Your task to perform on an android device: Empty the shopping cart on ebay. Add "razer deathadder" to the cart on ebay Image 0: 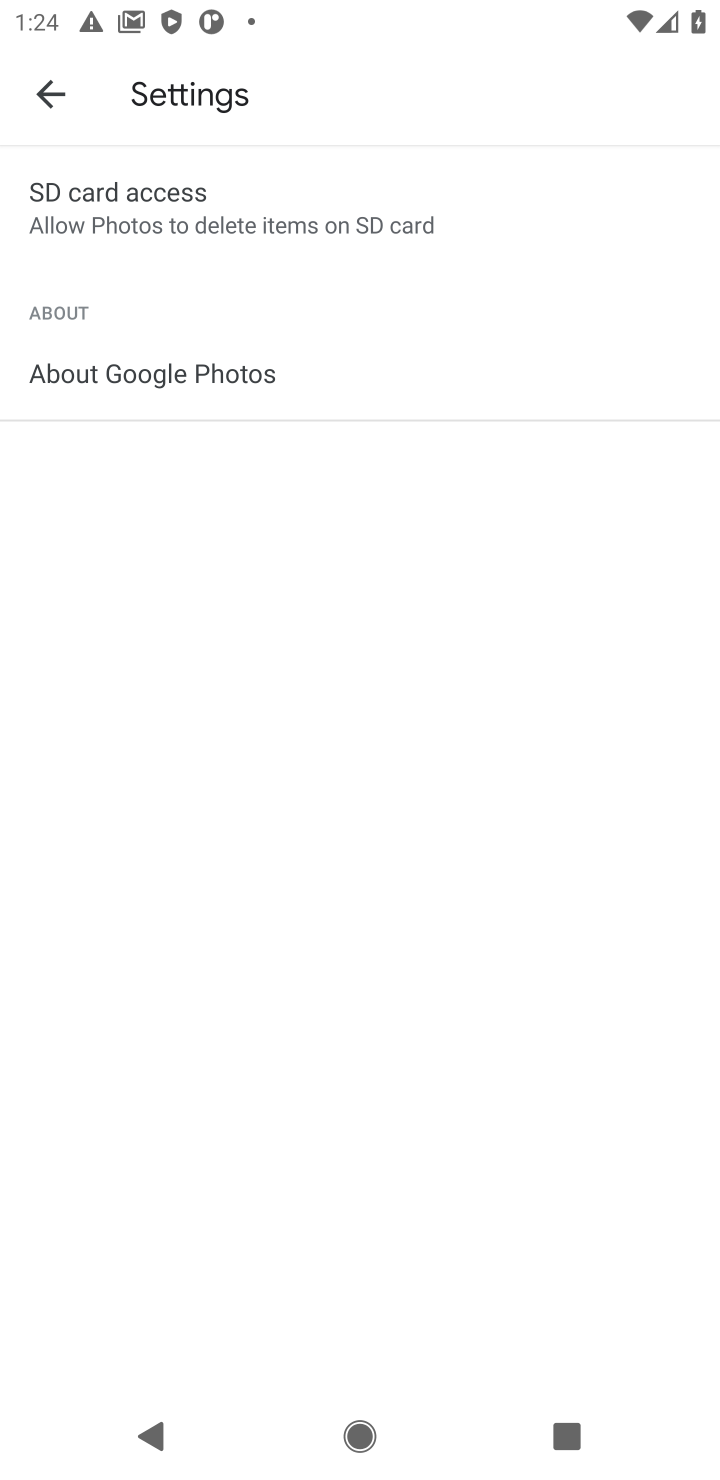
Step 0: press home button
Your task to perform on an android device: Empty the shopping cart on ebay. Add "razer deathadder" to the cart on ebay Image 1: 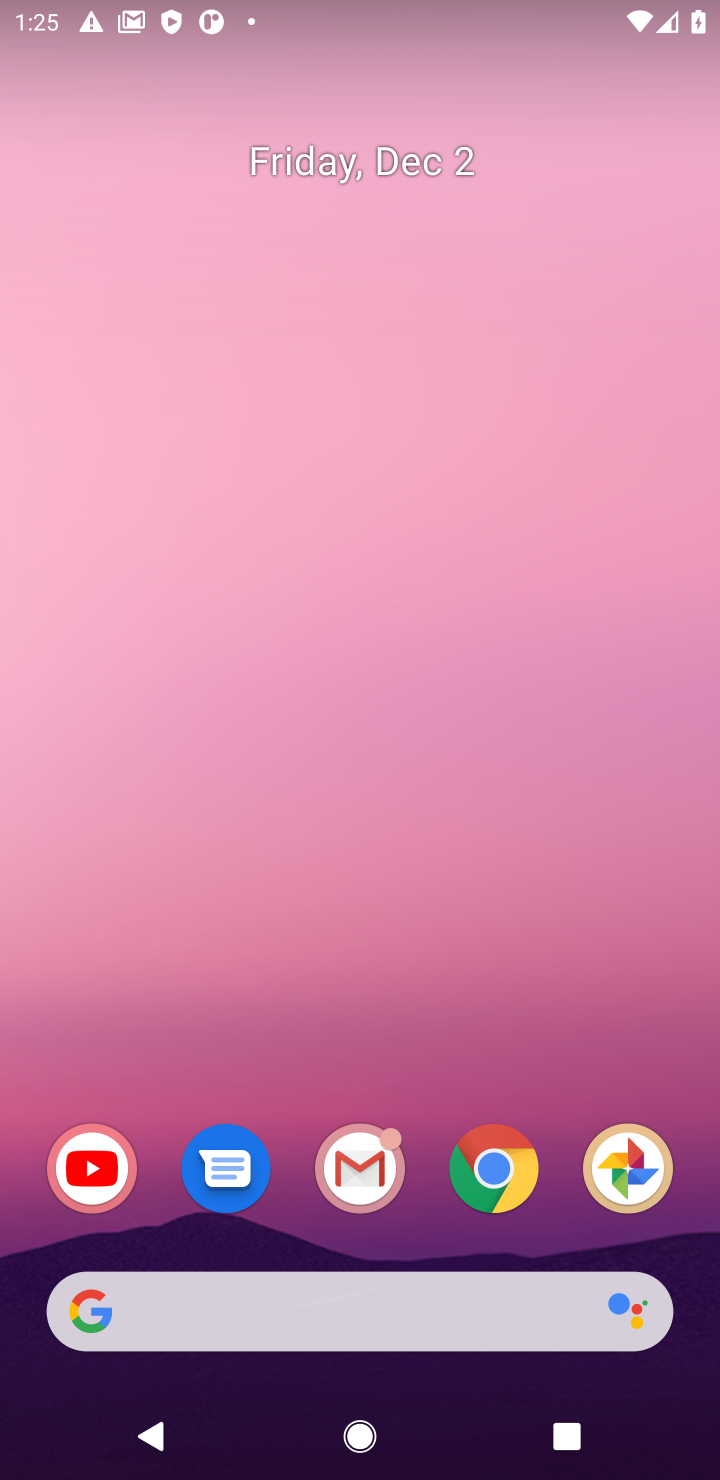
Step 1: click (477, 1163)
Your task to perform on an android device: Empty the shopping cart on ebay. Add "razer deathadder" to the cart on ebay Image 2: 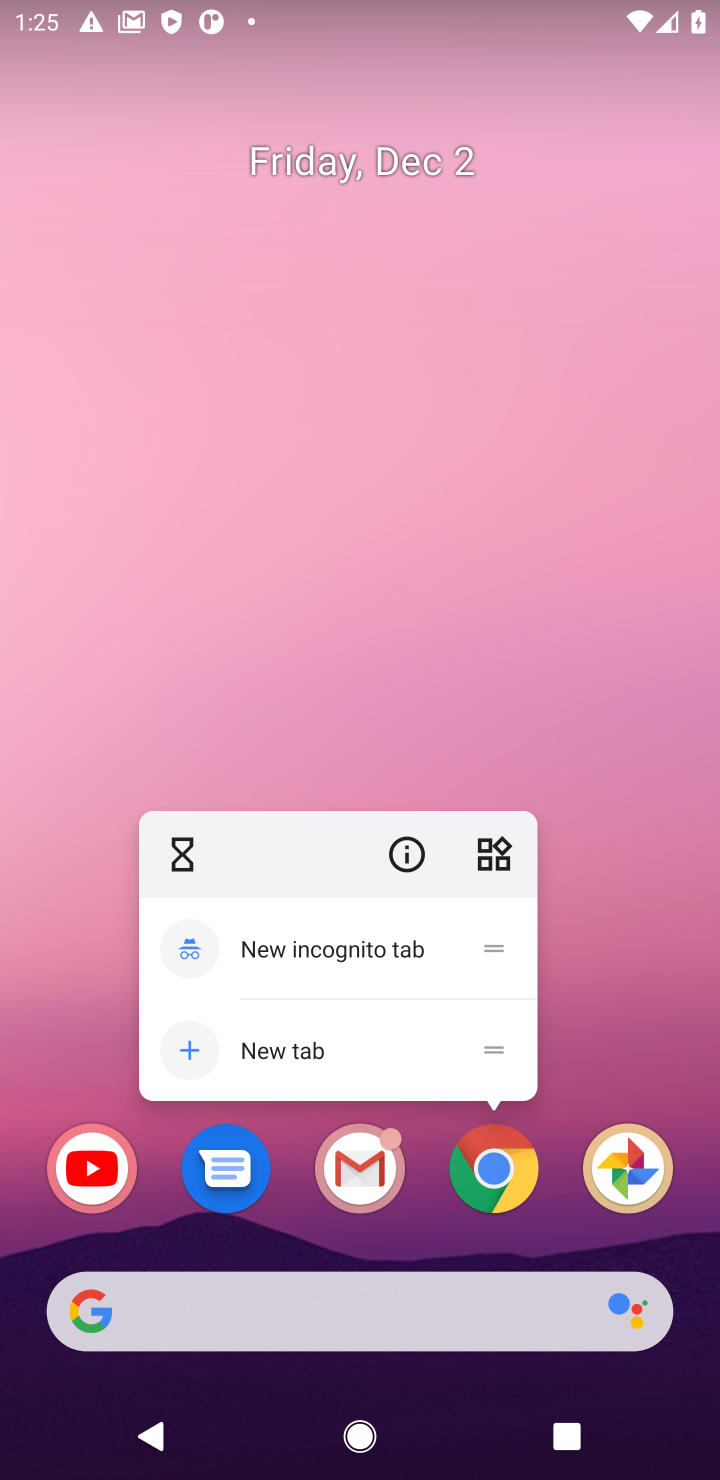
Step 2: click (494, 1178)
Your task to perform on an android device: Empty the shopping cart on ebay. Add "razer deathadder" to the cart on ebay Image 3: 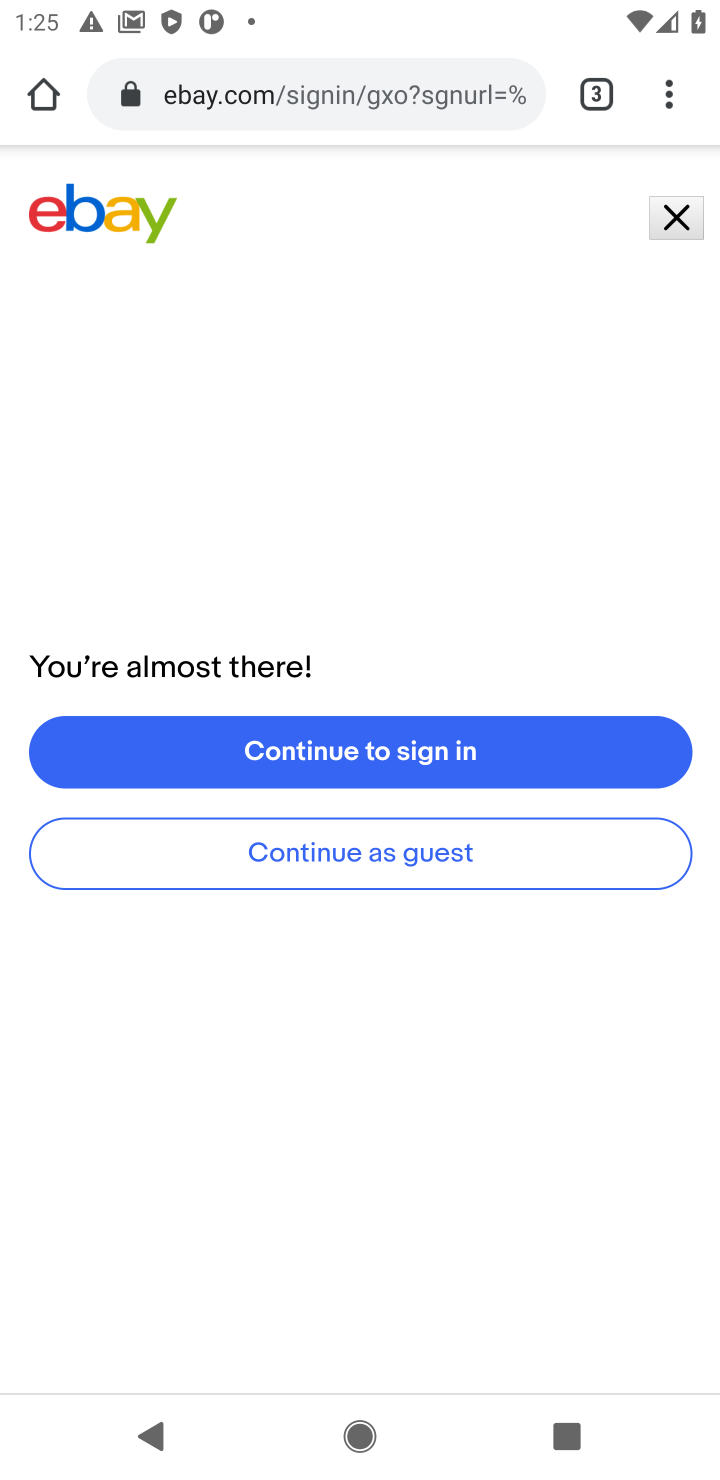
Step 3: click (675, 224)
Your task to perform on an android device: Empty the shopping cart on ebay. Add "razer deathadder" to the cart on ebay Image 4: 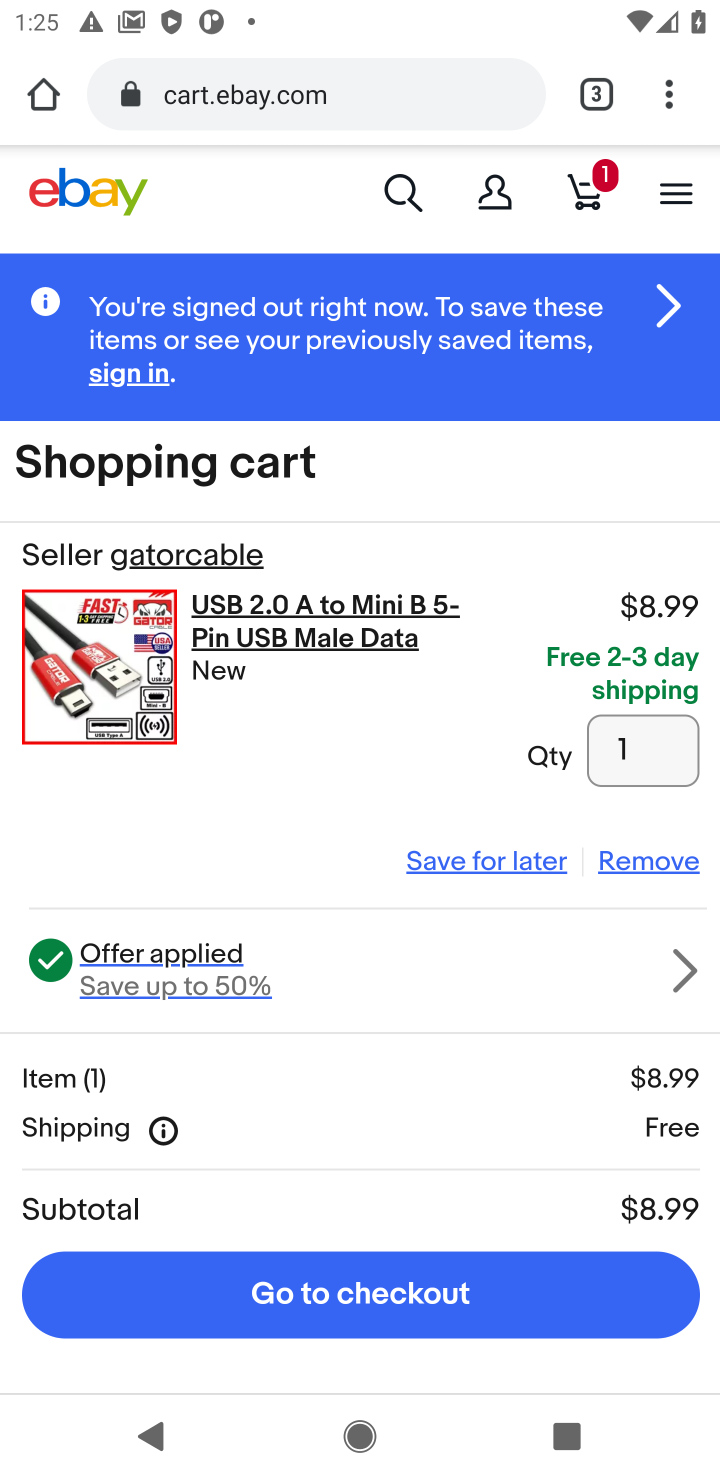
Step 4: drag from (330, 847) to (309, 572)
Your task to perform on an android device: Empty the shopping cart on ebay. Add "razer deathadder" to the cart on ebay Image 5: 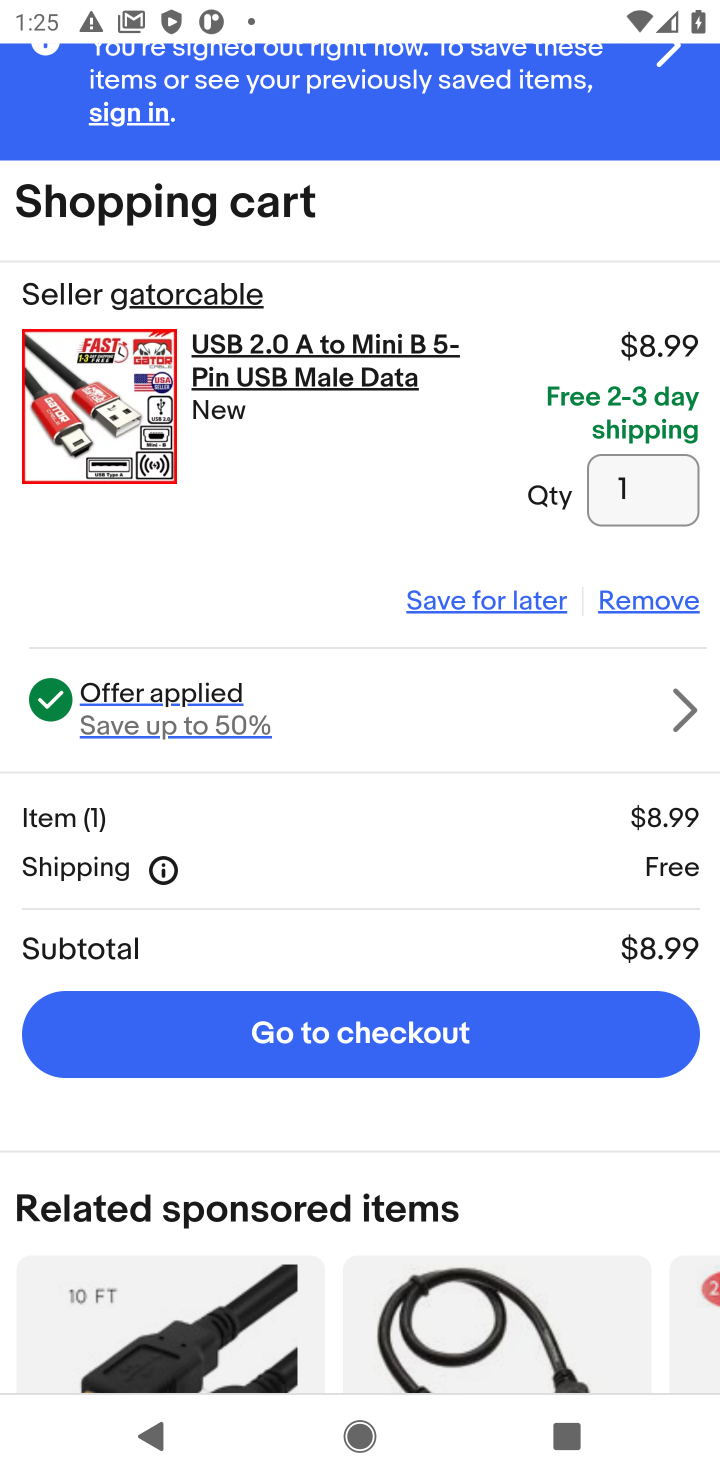
Step 5: click (639, 603)
Your task to perform on an android device: Empty the shopping cart on ebay. Add "razer deathadder" to the cart on ebay Image 6: 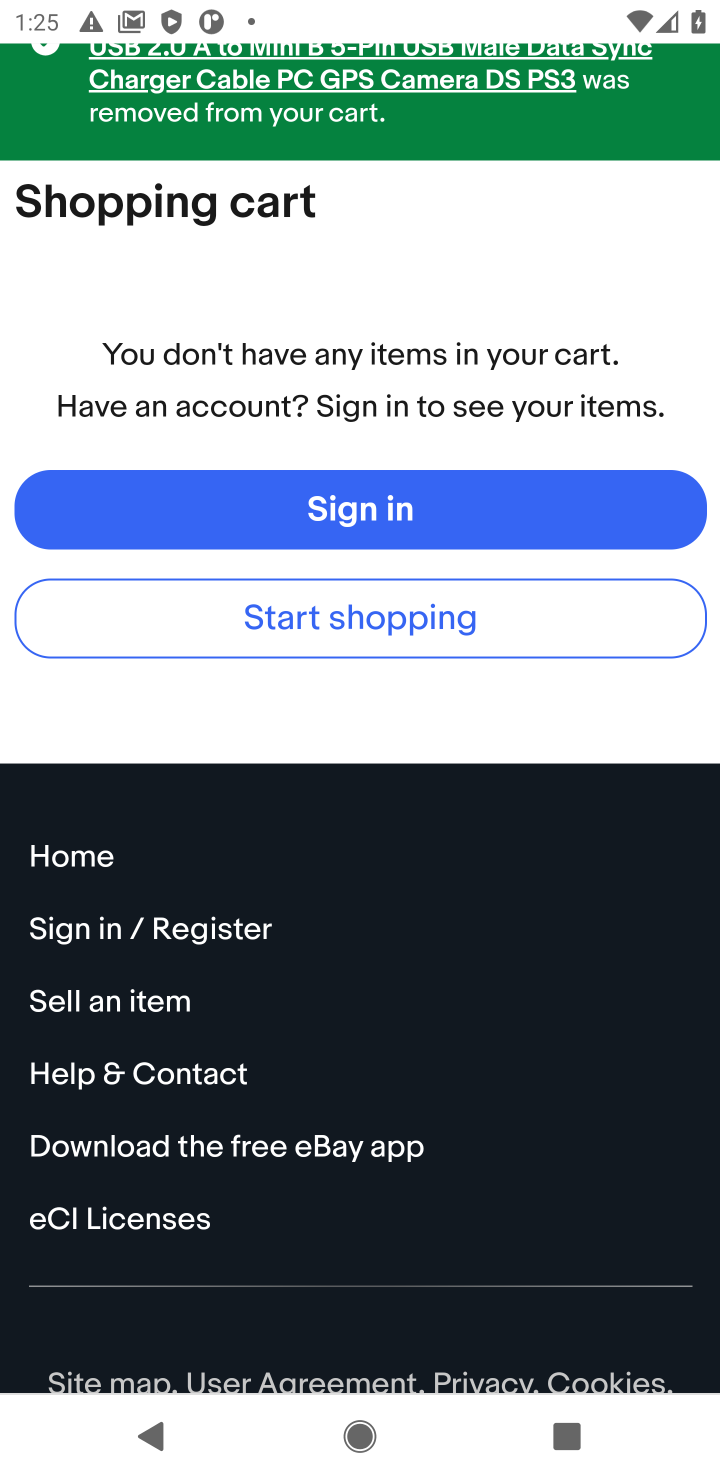
Step 6: drag from (355, 336) to (349, 699)
Your task to perform on an android device: Empty the shopping cart on ebay. Add "razer deathadder" to the cart on ebay Image 7: 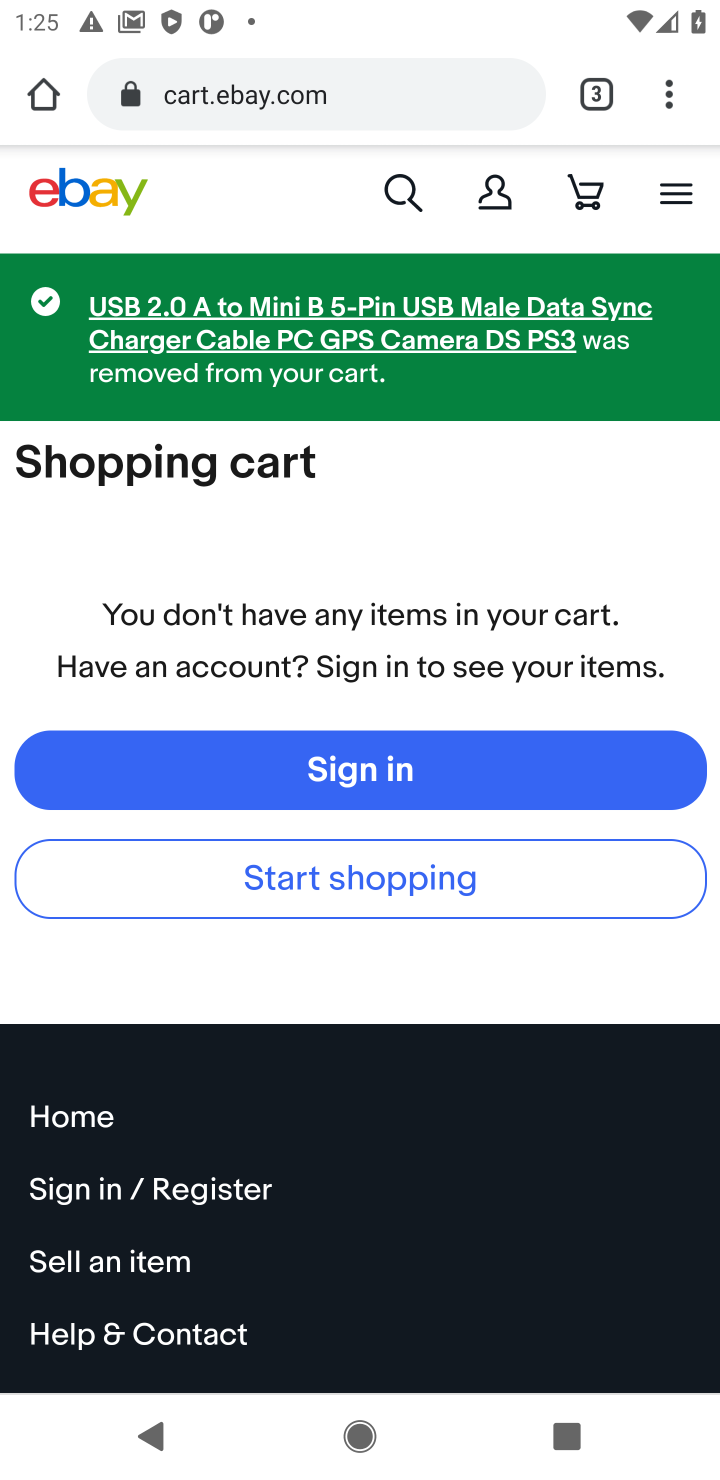
Step 7: click (395, 195)
Your task to perform on an android device: Empty the shopping cart on ebay. Add "razer deathadder" to the cart on ebay Image 8: 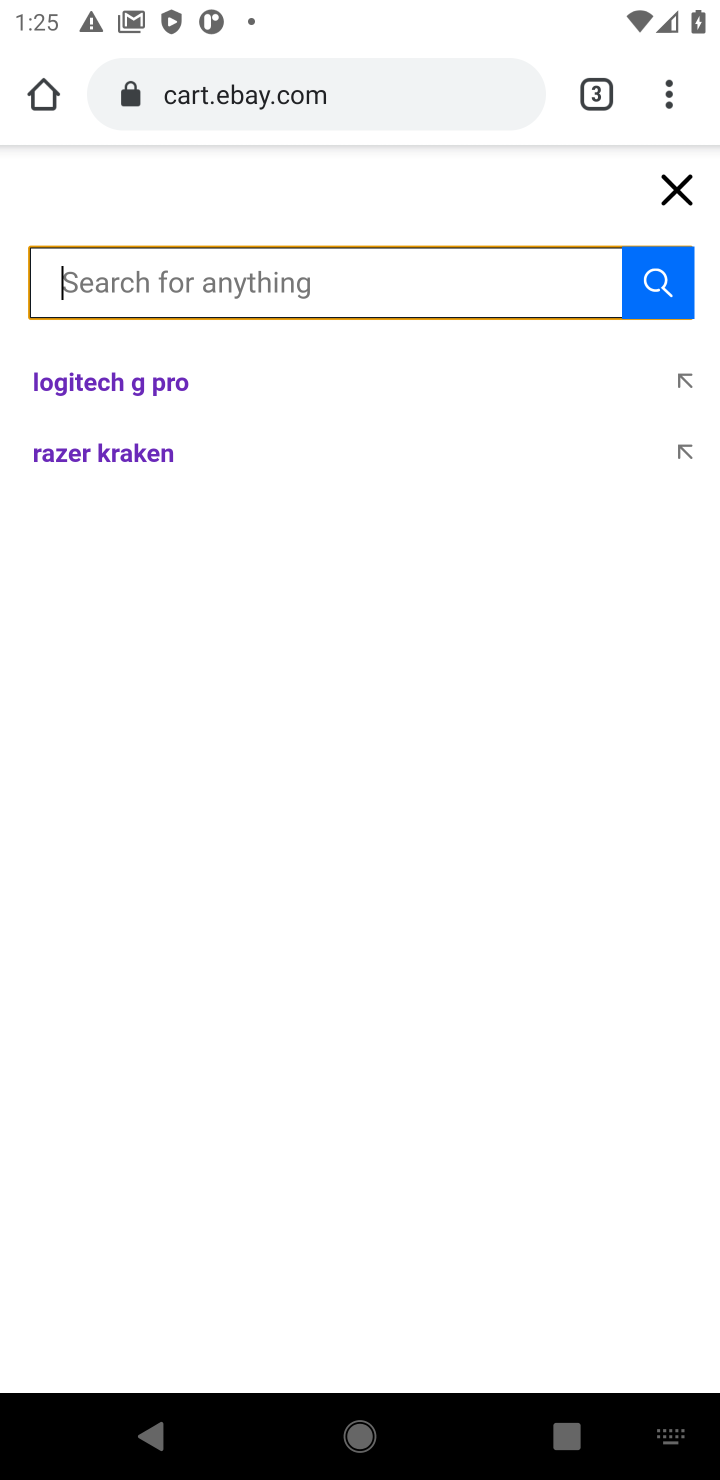
Step 8: type "razer deathadder"
Your task to perform on an android device: Empty the shopping cart on ebay. Add "razer deathadder" to the cart on ebay Image 9: 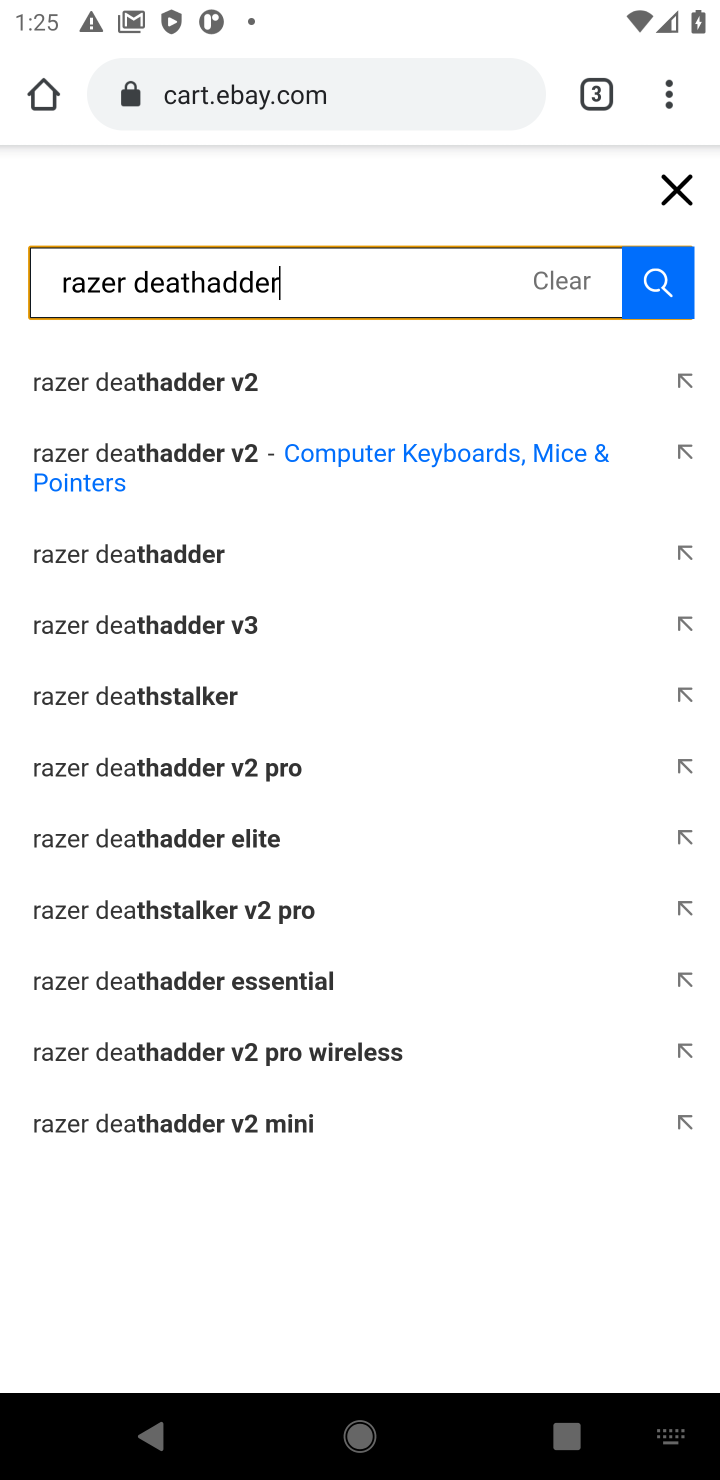
Step 9: click (131, 557)
Your task to perform on an android device: Empty the shopping cart on ebay. Add "razer deathadder" to the cart on ebay Image 10: 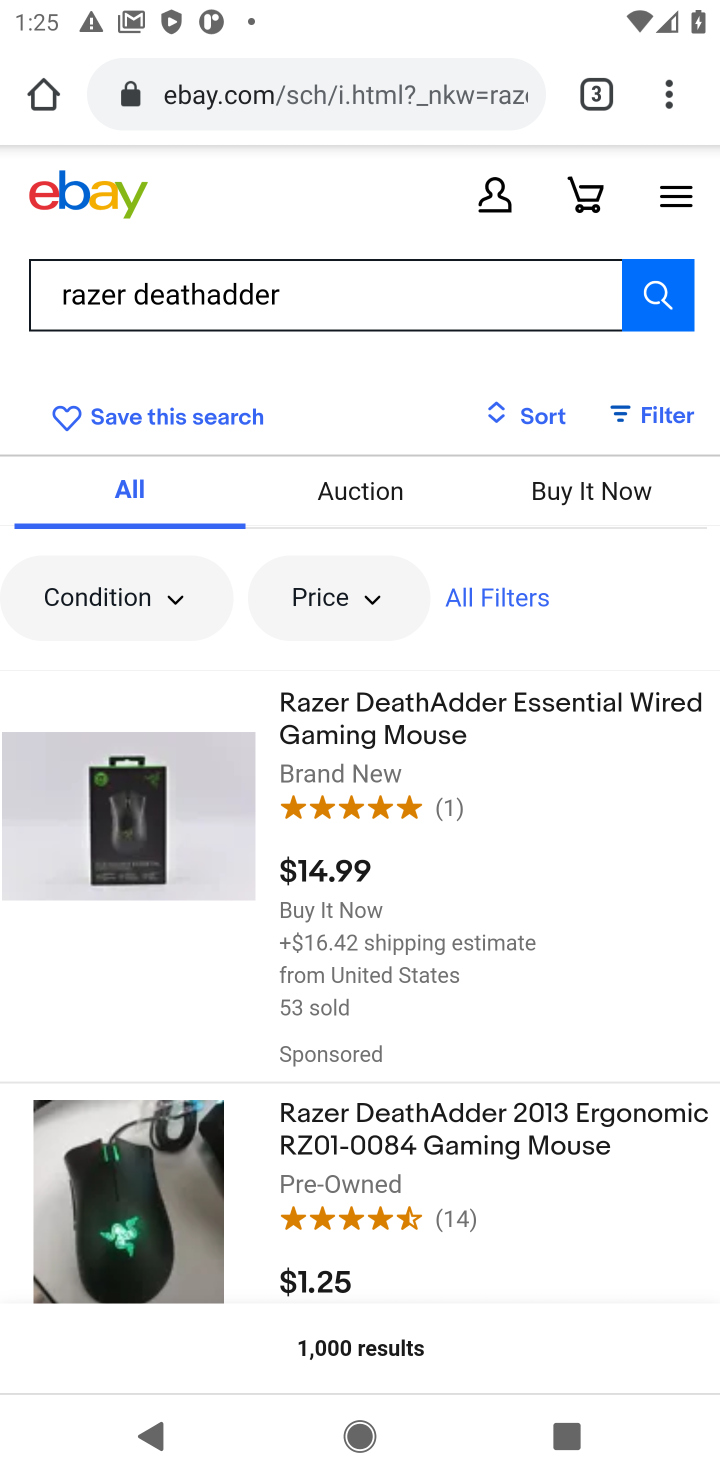
Step 10: click (374, 740)
Your task to perform on an android device: Empty the shopping cart on ebay. Add "razer deathadder" to the cart on ebay Image 11: 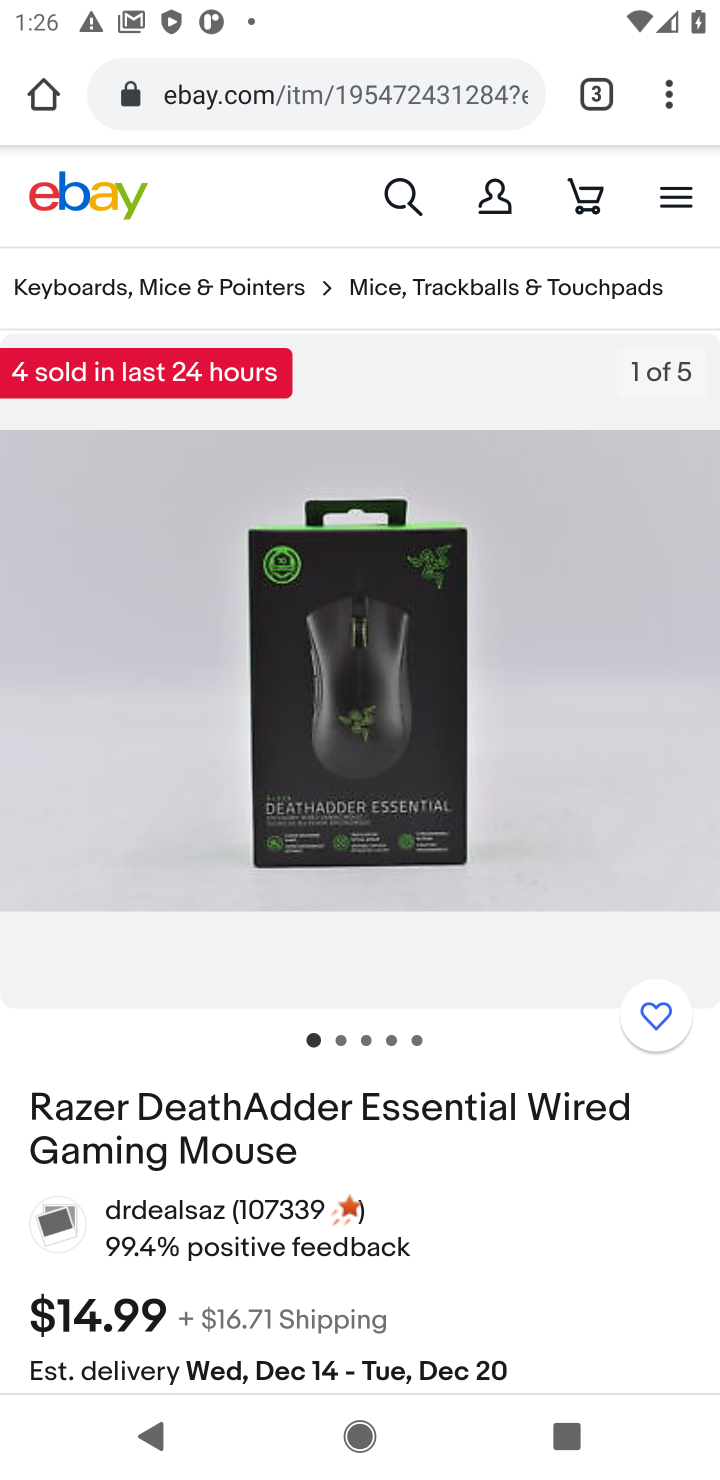
Step 11: drag from (359, 1112) to (339, 557)
Your task to perform on an android device: Empty the shopping cart on ebay. Add "razer deathadder" to the cart on ebay Image 12: 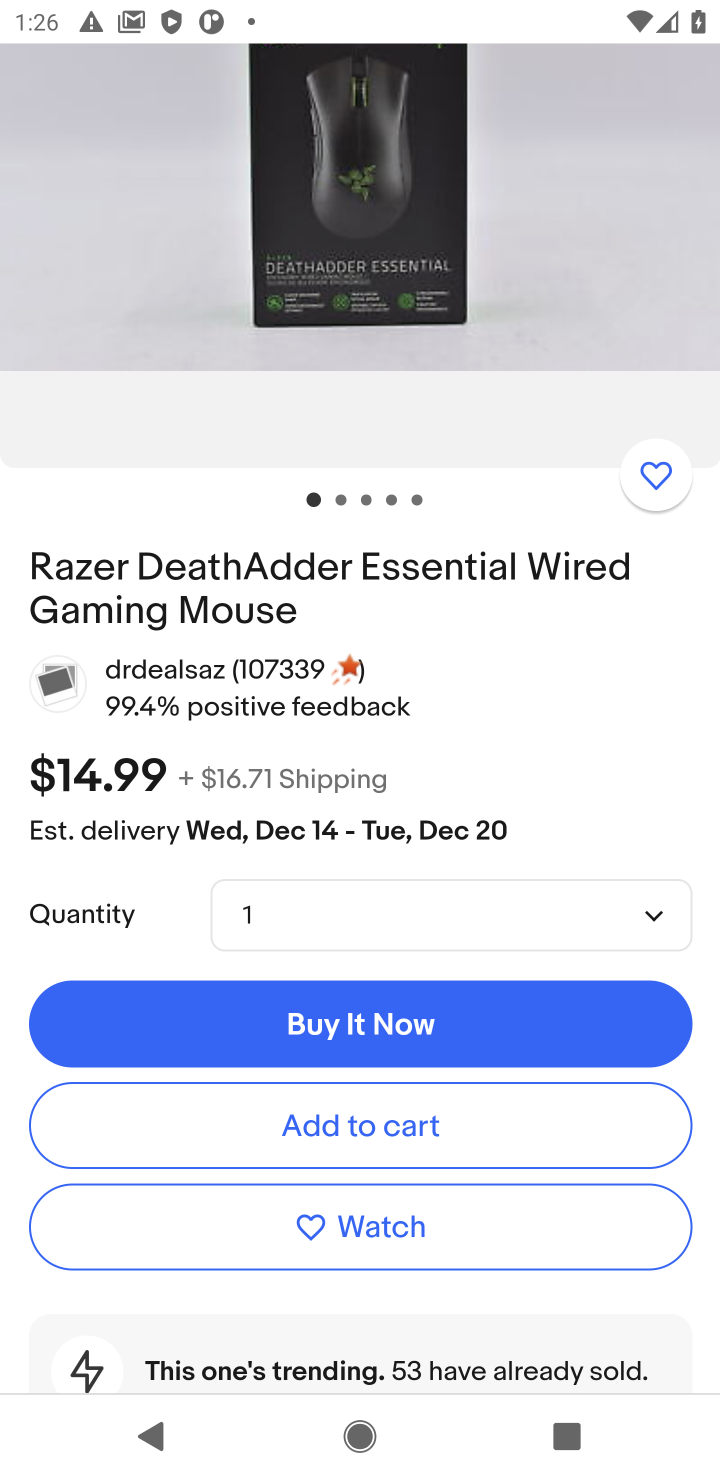
Step 12: click (344, 1114)
Your task to perform on an android device: Empty the shopping cart on ebay. Add "razer deathadder" to the cart on ebay Image 13: 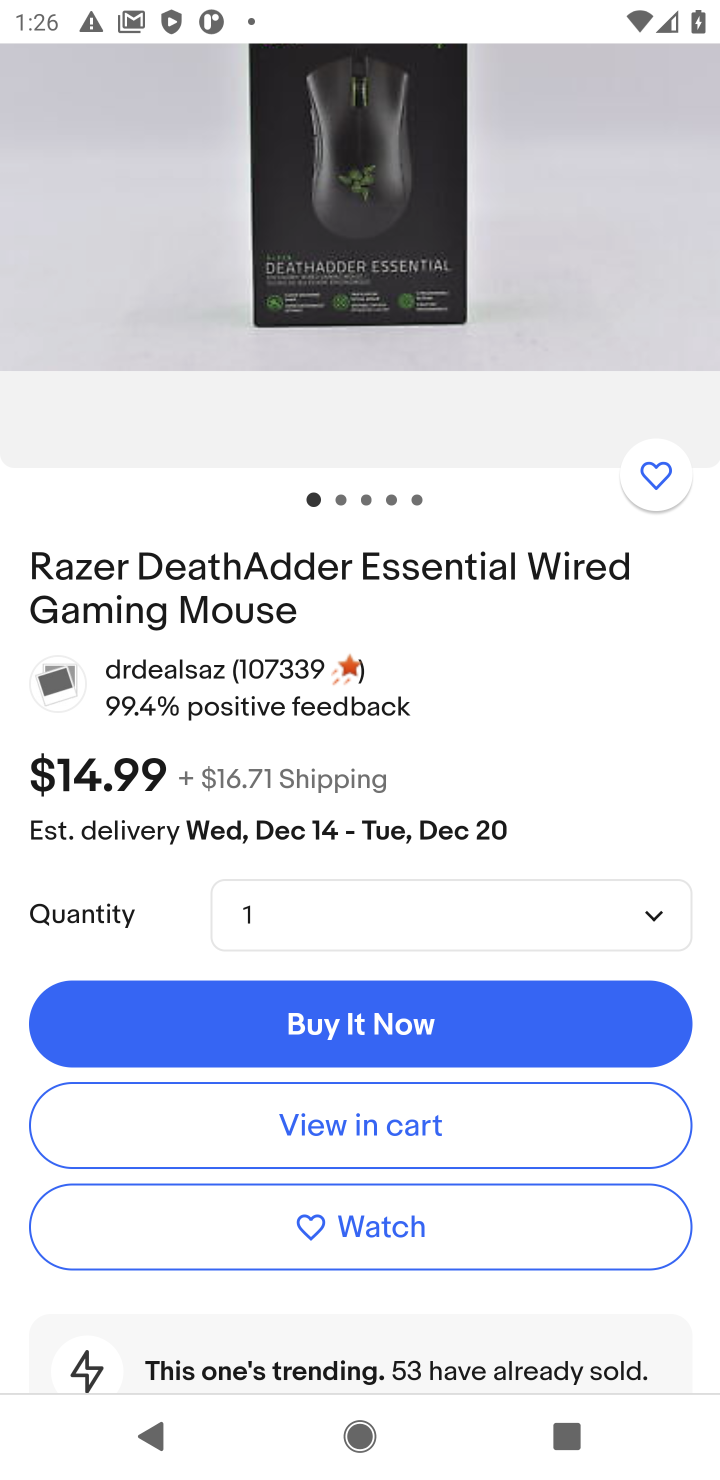
Step 13: task complete